Your task to perform on an android device: open device folders in google photos Image 0: 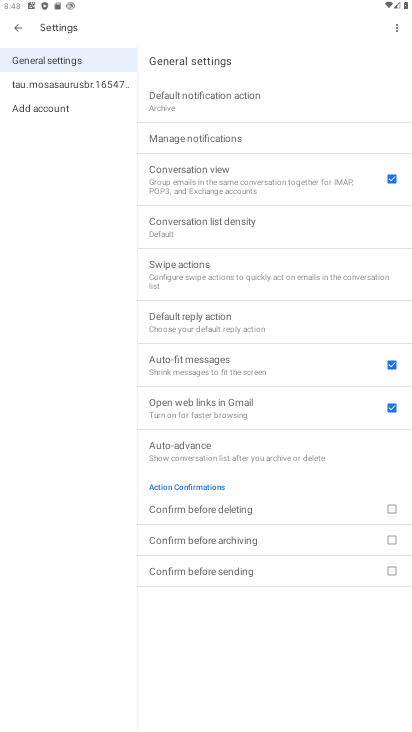
Step 0: press home button
Your task to perform on an android device: open device folders in google photos Image 1: 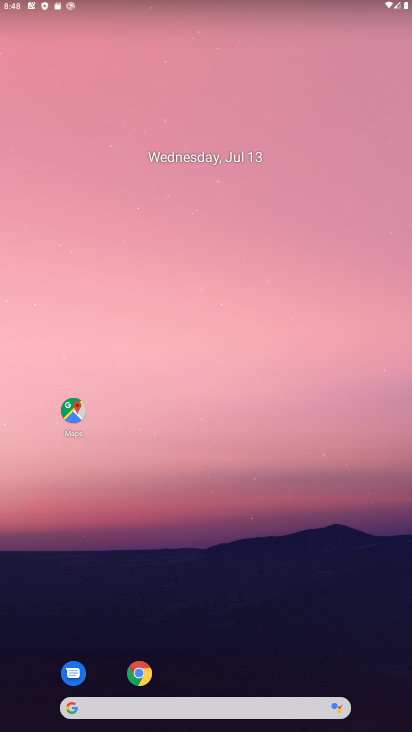
Step 1: drag from (315, 656) to (299, 179)
Your task to perform on an android device: open device folders in google photos Image 2: 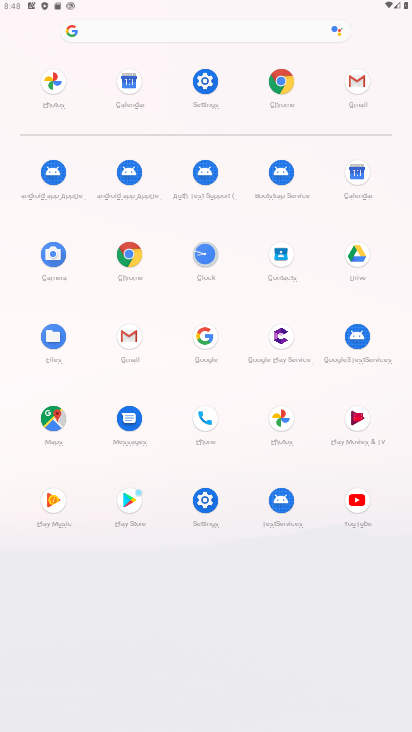
Step 2: click (283, 415)
Your task to perform on an android device: open device folders in google photos Image 3: 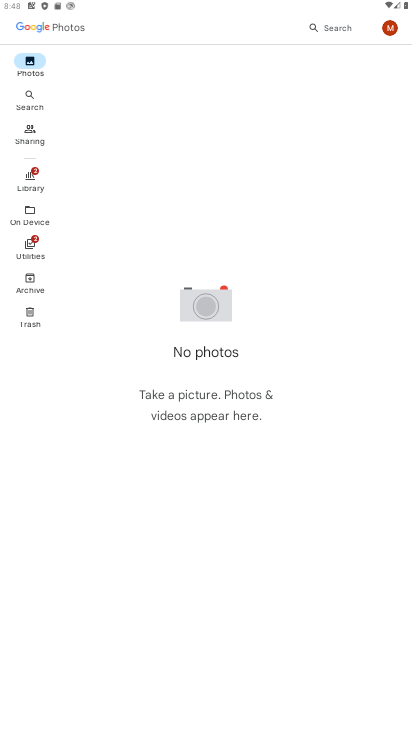
Step 3: click (30, 216)
Your task to perform on an android device: open device folders in google photos Image 4: 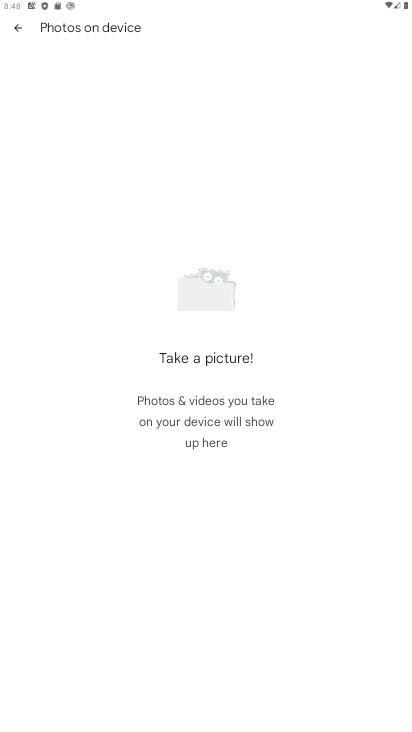
Step 4: task complete